Your task to perform on an android device: Clear the cart on costco.com. Search for usb-a to usb-b on costco.com, select the first entry, add it to the cart, then select checkout. Image 0: 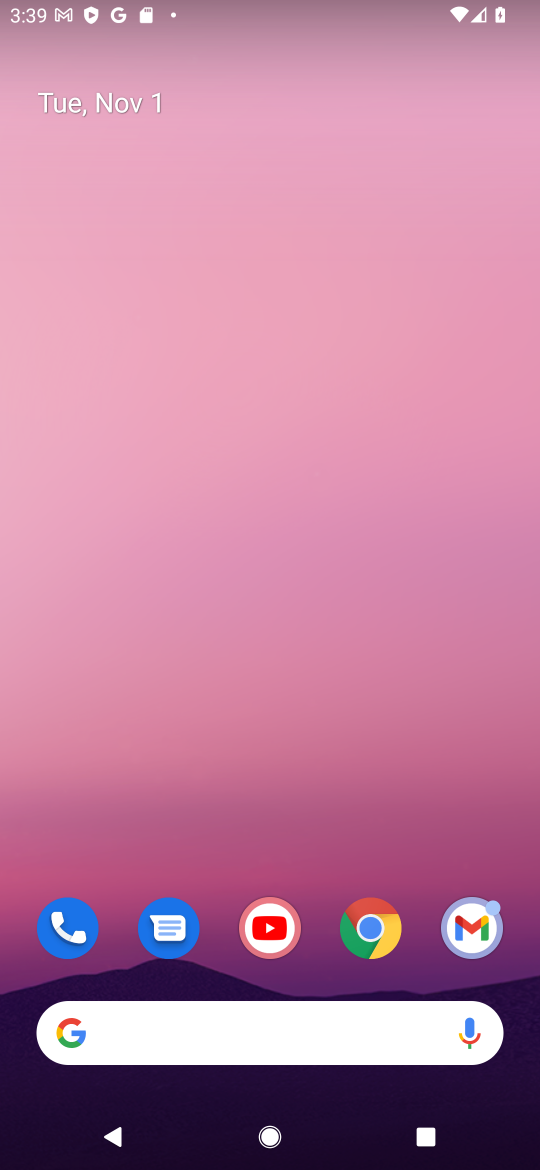
Step 0: click (380, 950)
Your task to perform on an android device: Clear the cart on costco.com. Search for usb-a to usb-b on costco.com, select the first entry, add it to the cart, then select checkout. Image 1: 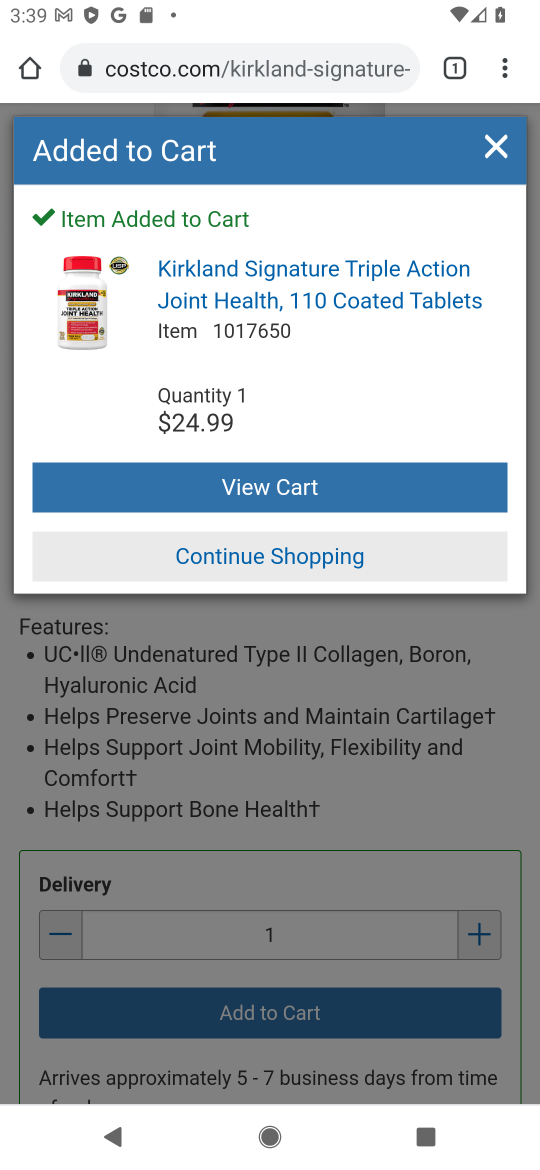
Step 1: click (257, 56)
Your task to perform on an android device: Clear the cart on costco.com. Search for usb-a to usb-b on costco.com, select the first entry, add it to the cart, then select checkout. Image 2: 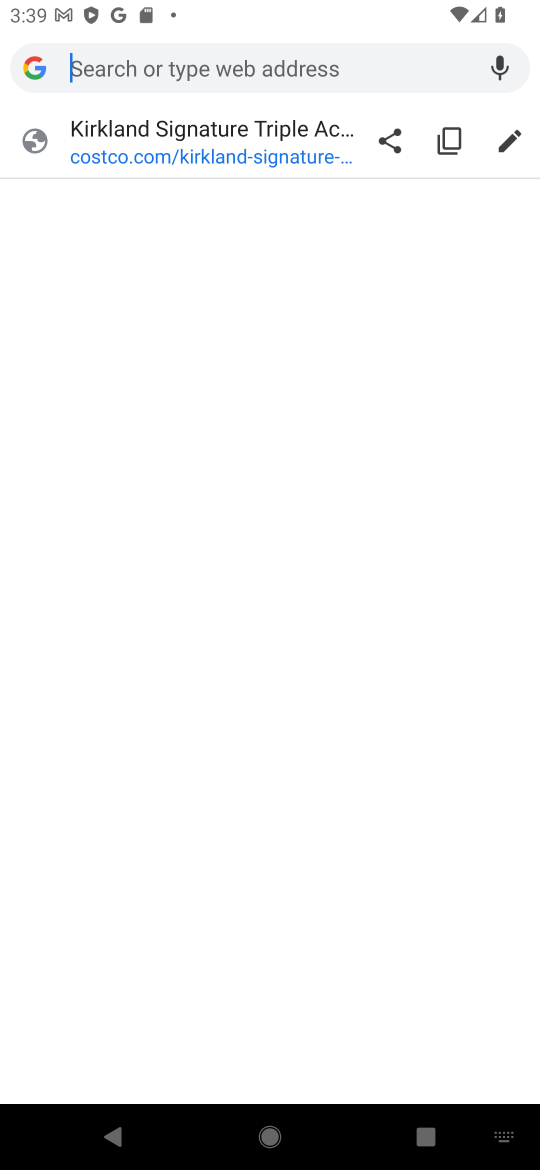
Step 2: type "costco.com"
Your task to perform on an android device: Clear the cart on costco.com. Search for usb-a to usb-b on costco.com, select the first entry, add it to the cart, then select checkout. Image 3: 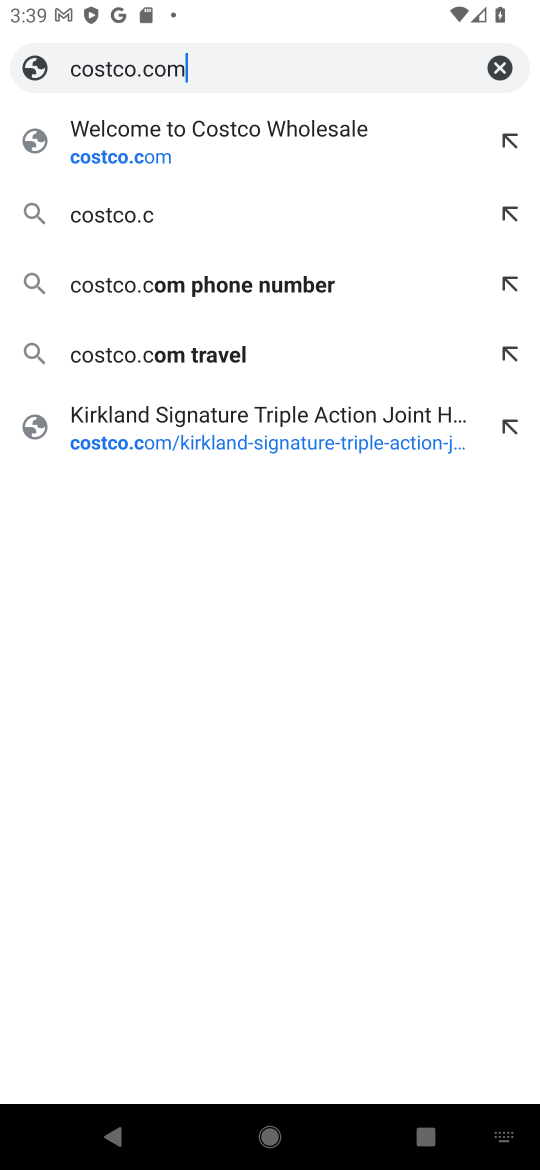
Step 3: type ""
Your task to perform on an android device: Clear the cart on costco.com. Search for usb-a to usb-b on costco.com, select the first entry, add it to the cart, then select checkout. Image 4: 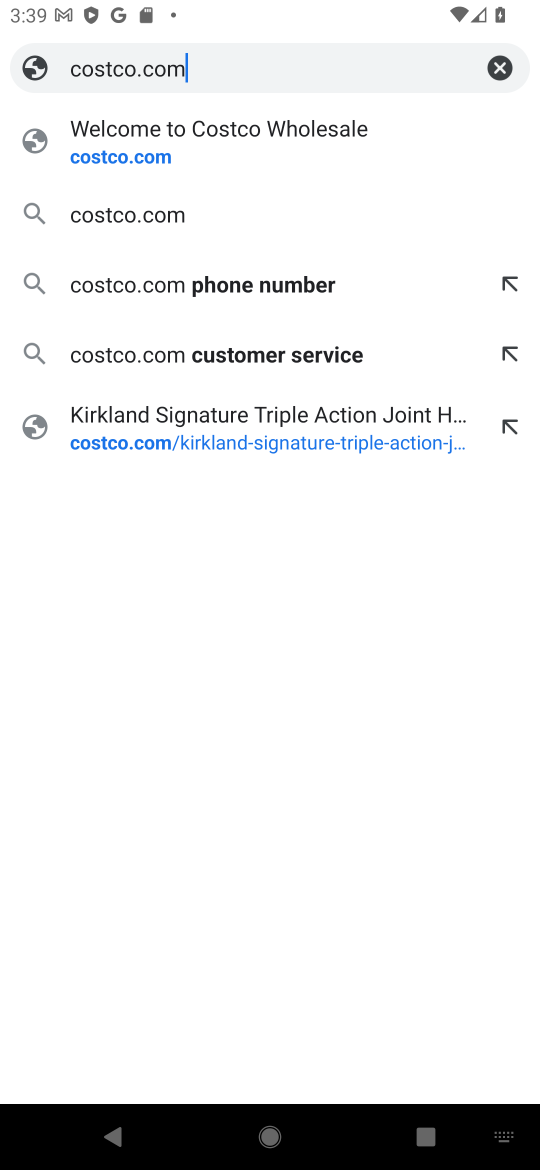
Step 4: press enter
Your task to perform on an android device: Clear the cart on costco.com. Search for usb-a to usb-b on costco.com, select the first entry, add it to the cart, then select checkout. Image 5: 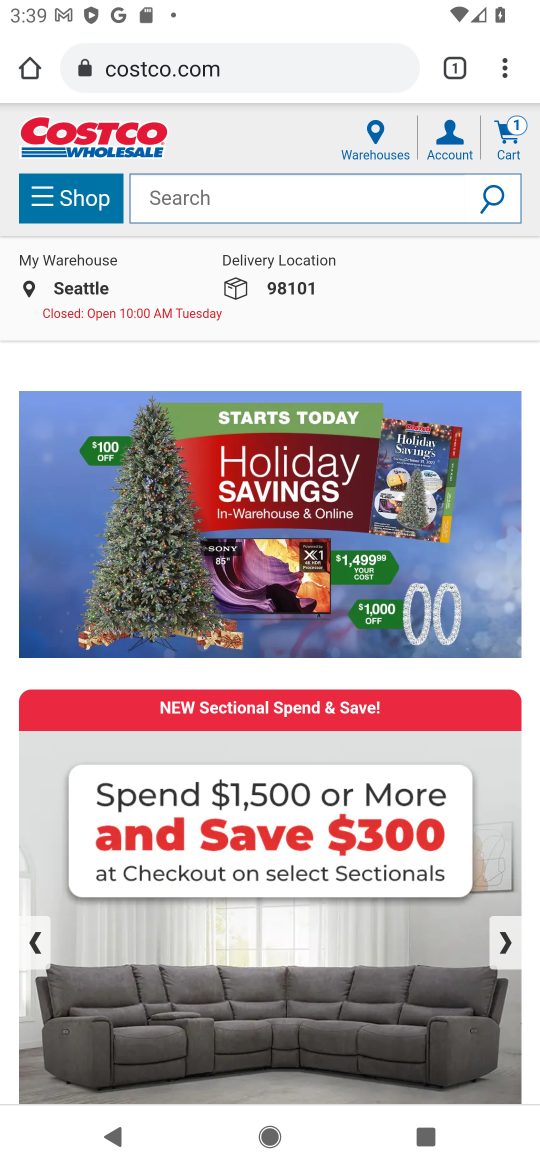
Step 5: click (505, 134)
Your task to perform on an android device: Clear the cart on costco.com. Search for usb-a to usb-b on costco.com, select the first entry, add it to the cart, then select checkout. Image 6: 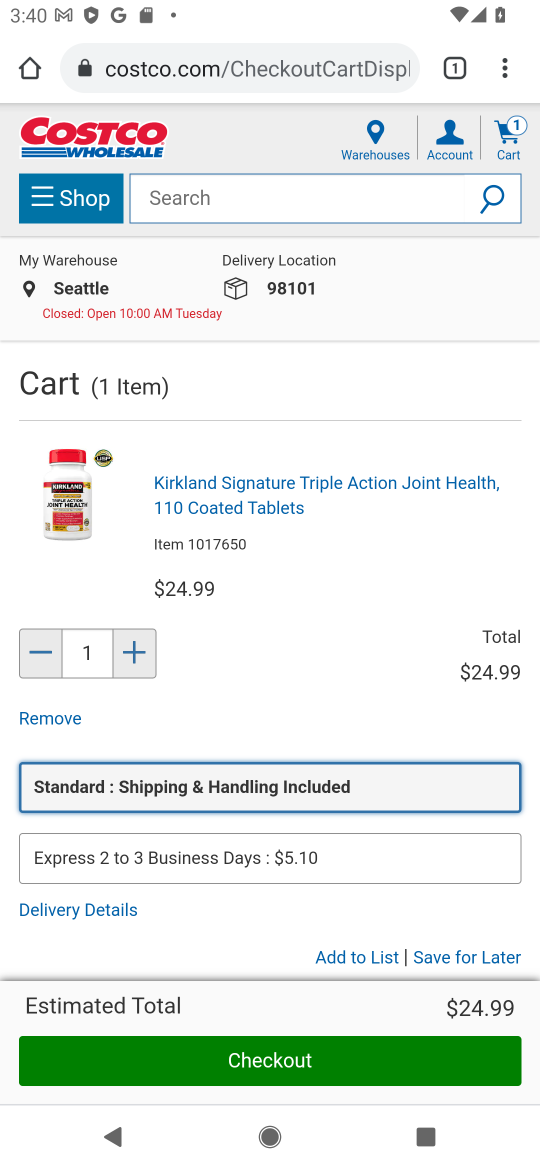
Step 6: drag from (436, 995) to (420, 1050)
Your task to perform on an android device: Clear the cart on costco.com. Search for usb-a to usb-b on costco.com, select the first entry, add it to the cart, then select checkout. Image 7: 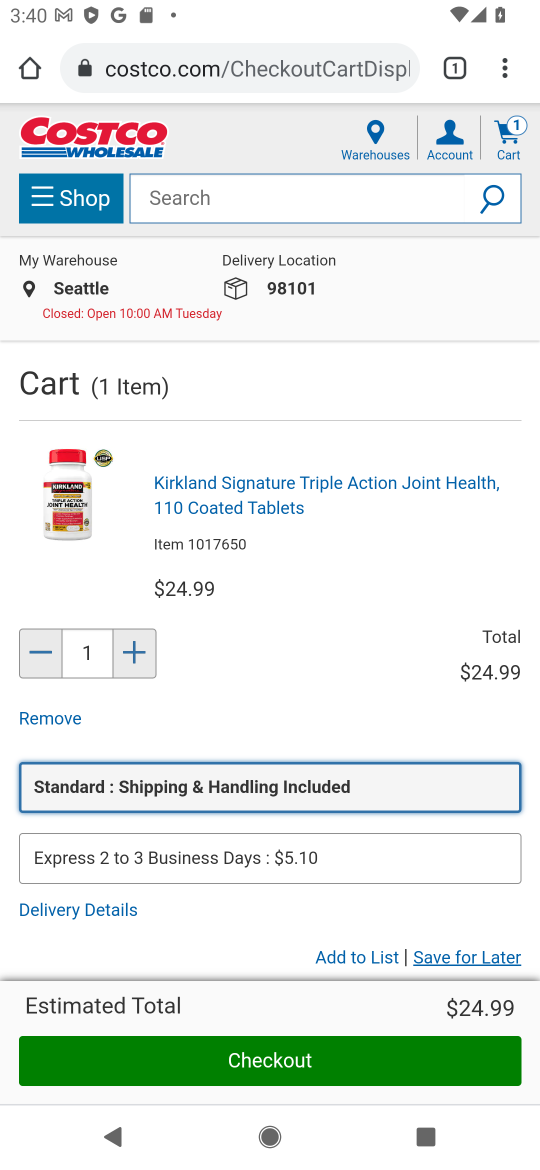
Step 7: click (258, 205)
Your task to perform on an android device: Clear the cart on costco.com. Search for usb-a to usb-b on costco.com, select the first entry, add it to the cart, then select checkout. Image 8: 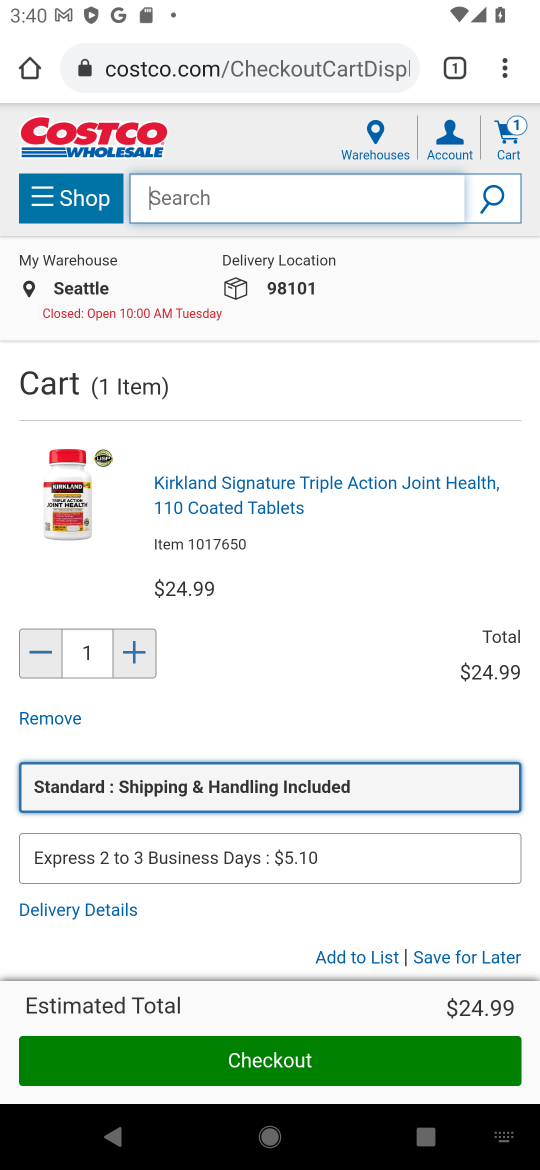
Step 8: drag from (347, 648) to (328, 529)
Your task to perform on an android device: Clear the cart on costco.com. Search for usb-a to usb-b on costco.com, select the first entry, add it to the cart, then select checkout. Image 9: 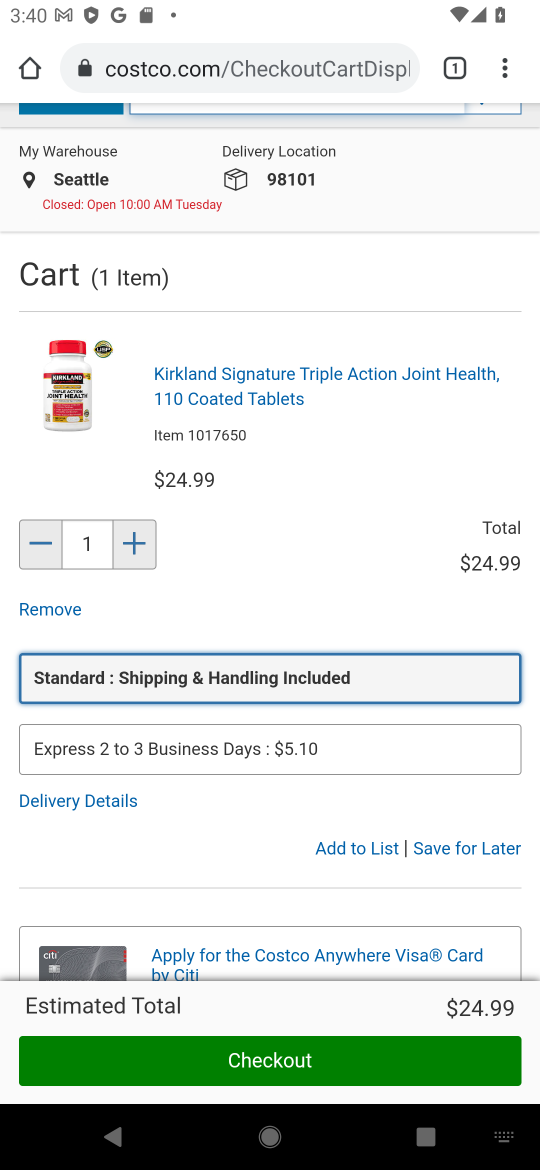
Step 9: click (59, 603)
Your task to perform on an android device: Clear the cart on costco.com. Search for usb-a to usb-b on costco.com, select the first entry, add it to the cart, then select checkout. Image 10: 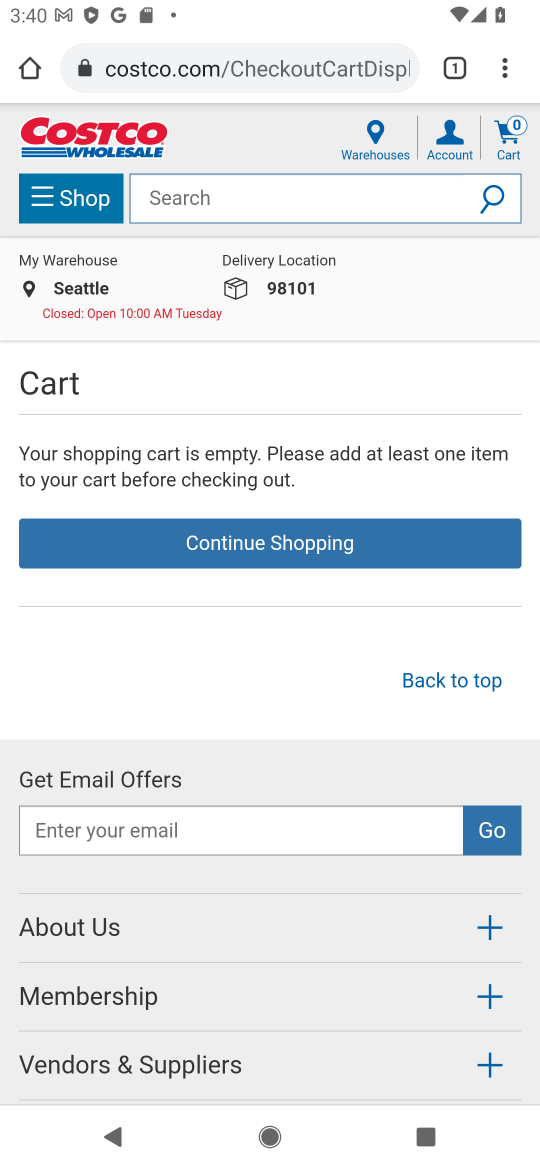
Step 10: click (277, 210)
Your task to perform on an android device: Clear the cart on costco.com. Search for usb-a to usb-b on costco.com, select the first entry, add it to the cart, then select checkout. Image 11: 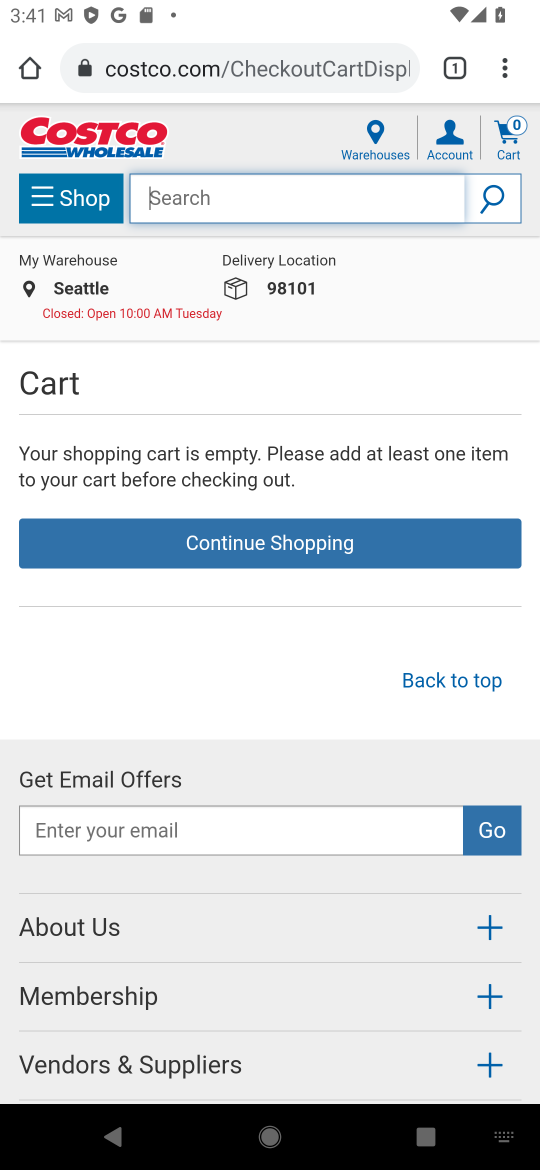
Step 11: type "usb-a to usb-b"
Your task to perform on an android device: Clear the cart on costco.com. Search for usb-a to usb-b on costco.com, select the first entry, add it to the cart, then select checkout. Image 12: 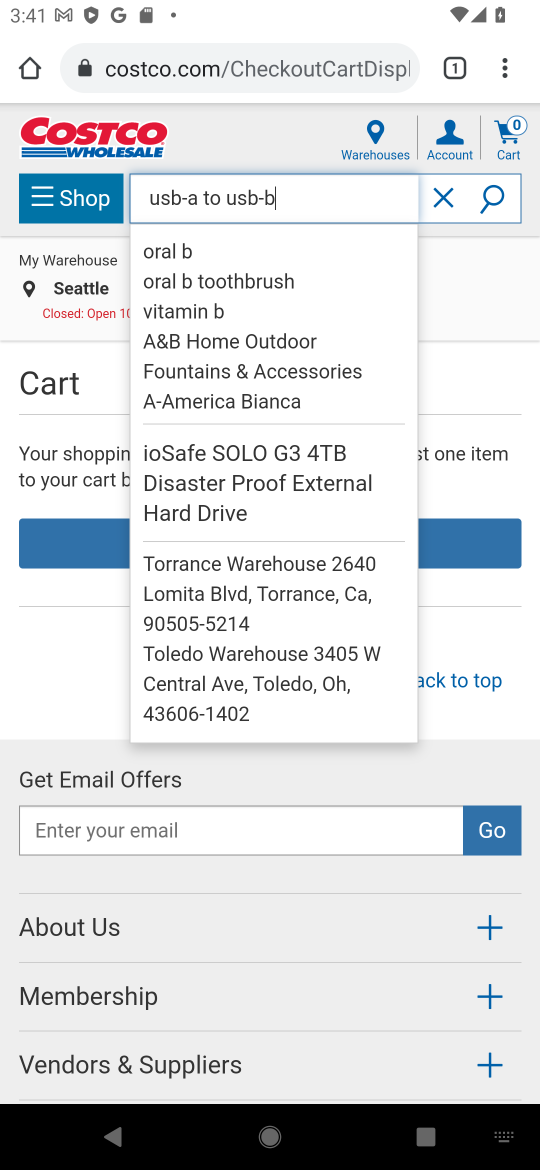
Step 12: press enter
Your task to perform on an android device: Clear the cart on costco.com. Search for usb-a to usb-b on costco.com, select the first entry, add it to the cart, then select checkout. Image 13: 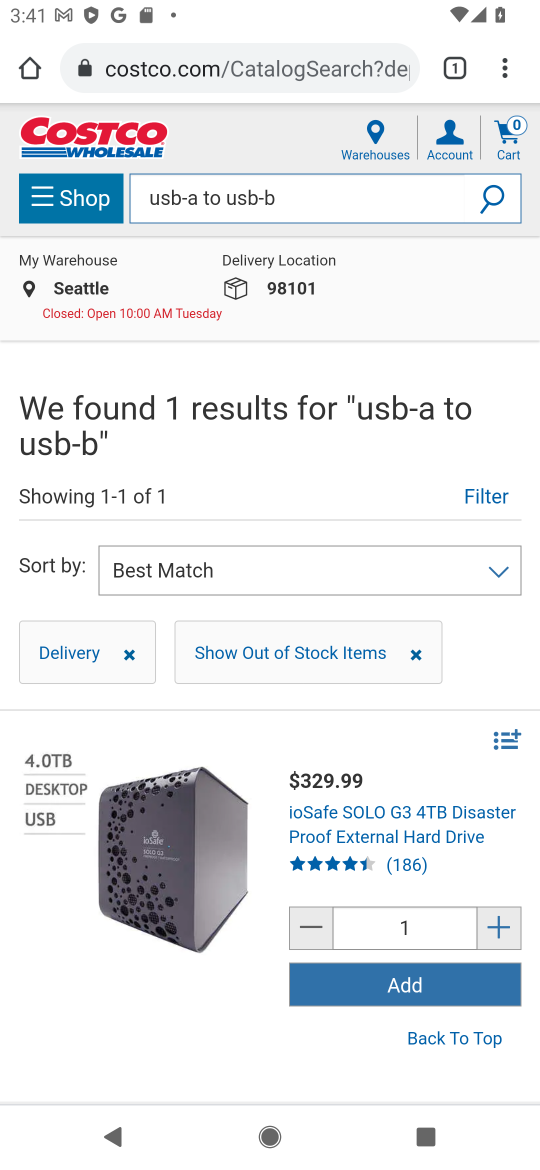
Step 13: drag from (212, 840) to (241, 622)
Your task to perform on an android device: Clear the cart on costco.com. Search for usb-a to usb-b on costco.com, select the first entry, add it to the cart, then select checkout. Image 14: 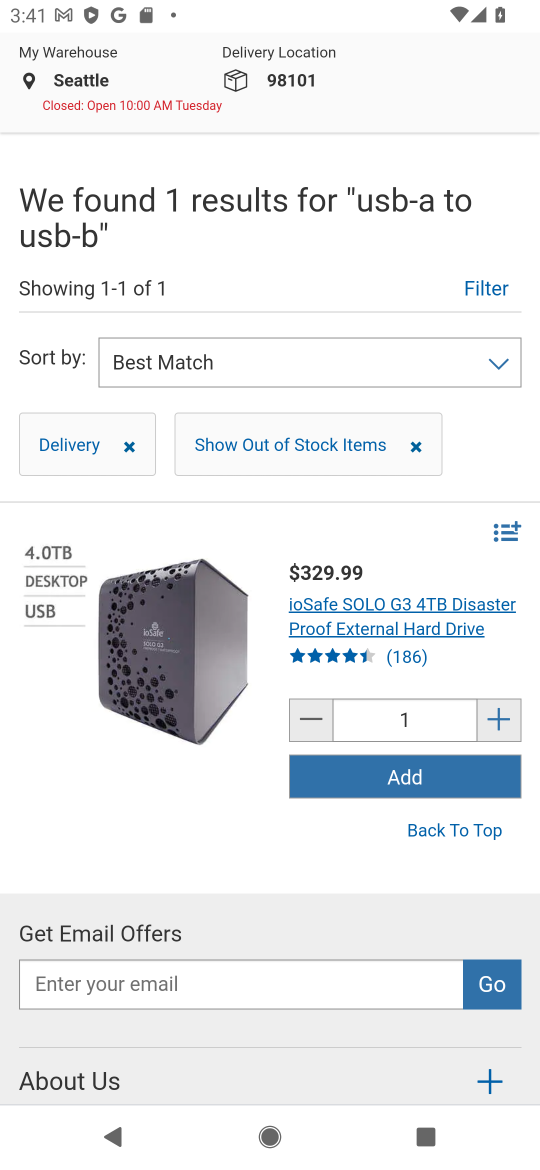
Step 14: click (342, 623)
Your task to perform on an android device: Clear the cart on costco.com. Search for usb-a to usb-b on costco.com, select the first entry, add it to the cart, then select checkout. Image 15: 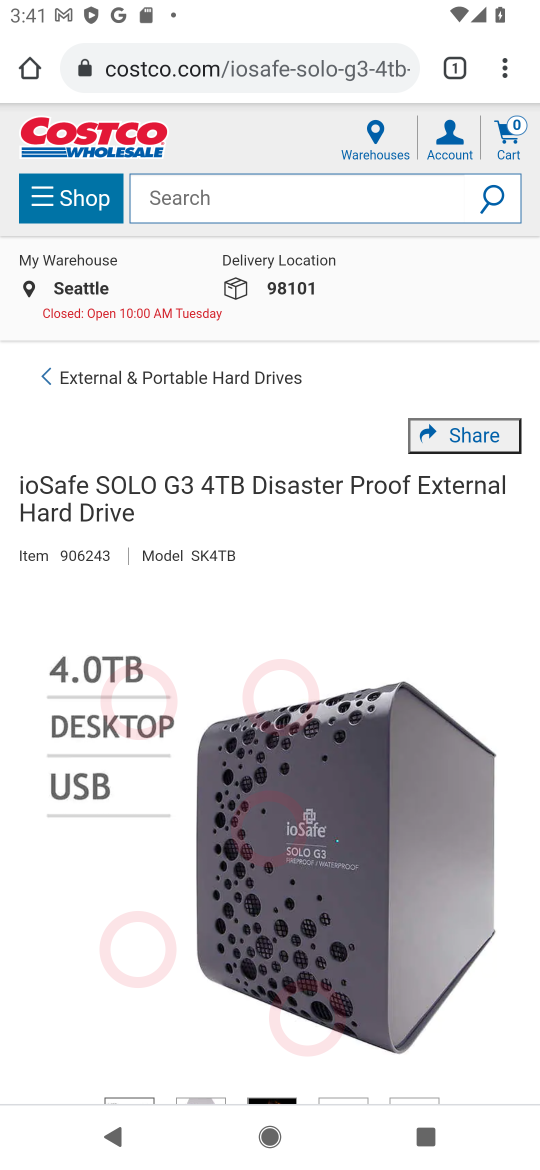
Step 15: drag from (350, 859) to (317, 334)
Your task to perform on an android device: Clear the cart on costco.com. Search for usb-a to usb-b on costco.com, select the first entry, add it to the cart, then select checkout. Image 16: 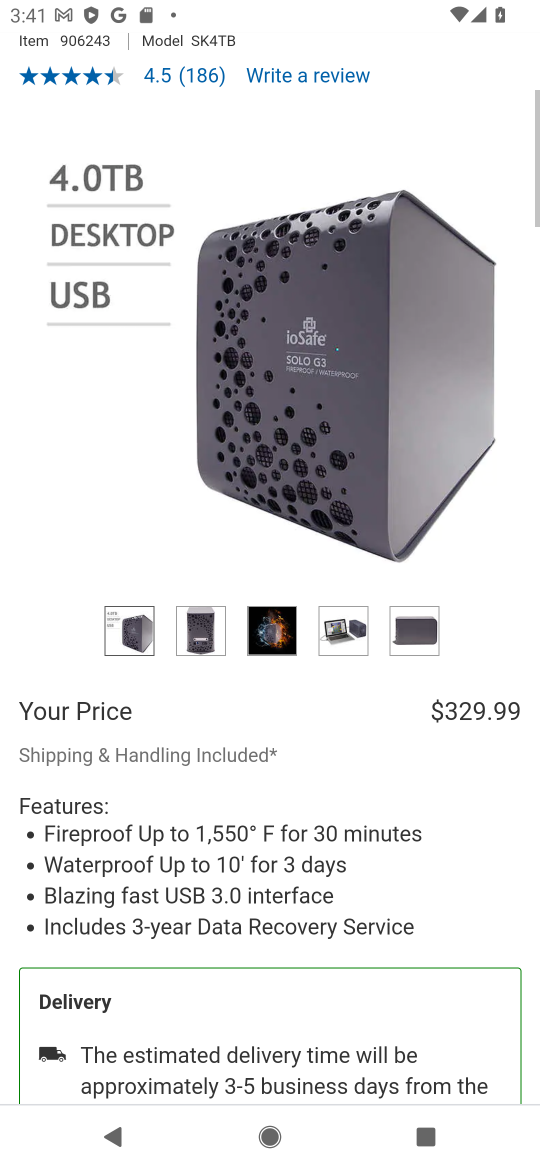
Step 16: drag from (298, 940) to (288, 403)
Your task to perform on an android device: Clear the cart on costco.com. Search for usb-a to usb-b on costco.com, select the first entry, add it to the cart, then select checkout. Image 17: 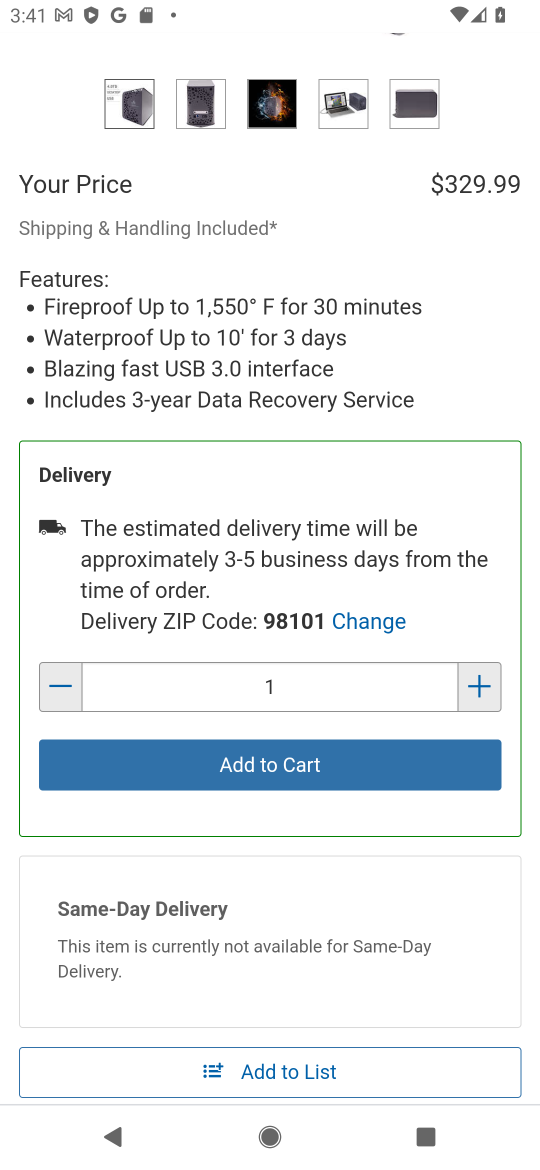
Step 17: click (278, 780)
Your task to perform on an android device: Clear the cart on costco.com. Search for usb-a to usb-b on costco.com, select the first entry, add it to the cart, then select checkout. Image 18: 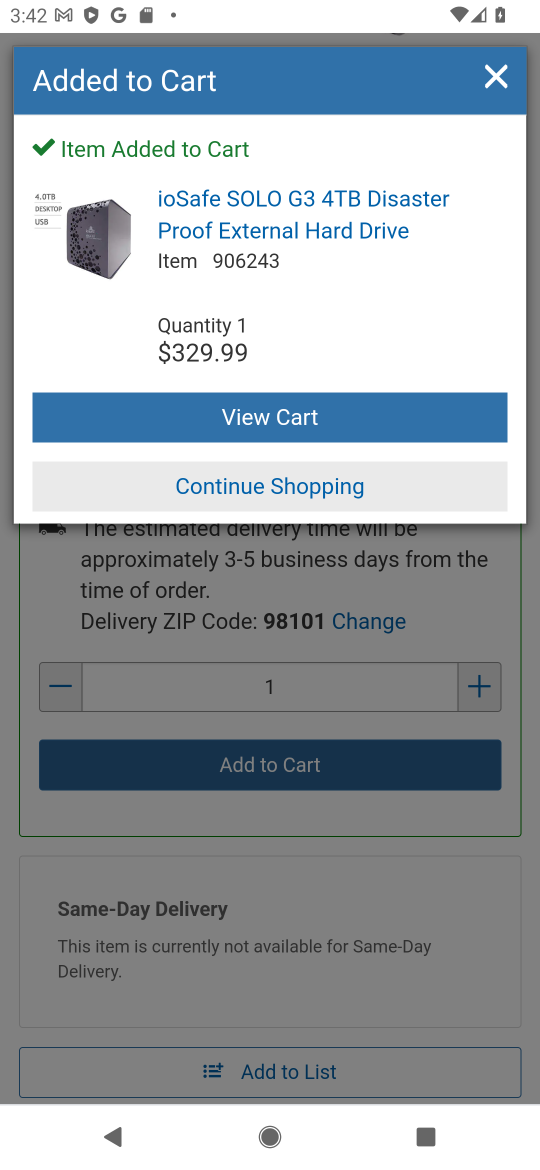
Step 18: click (283, 409)
Your task to perform on an android device: Clear the cart on costco.com. Search for usb-a to usb-b on costco.com, select the first entry, add it to the cart, then select checkout. Image 19: 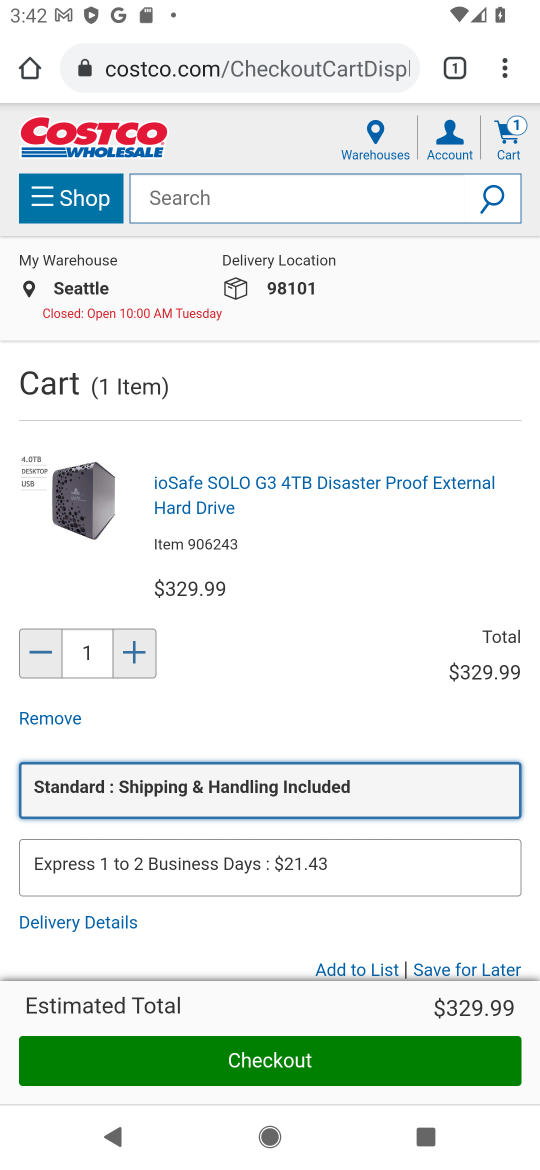
Step 19: click (292, 1058)
Your task to perform on an android device: Clear the cart on costco.com. Search for usb-a to usb-b on costco.com, select the first entry, add it to the cart, then select checkout. Image 20: 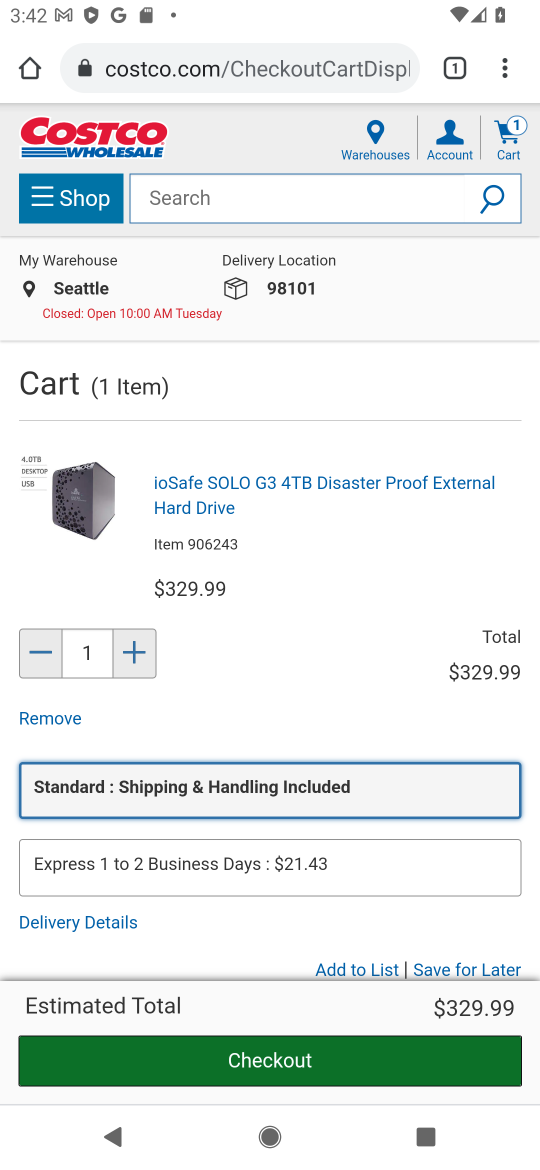
Step 20: click (294, 1067)
Your task to perform on an android device: Clear the cart on costco.com. Search for usb-a to usb-b on costco.com, select the first entry, add it to the cart, then select checkout. Image 21: 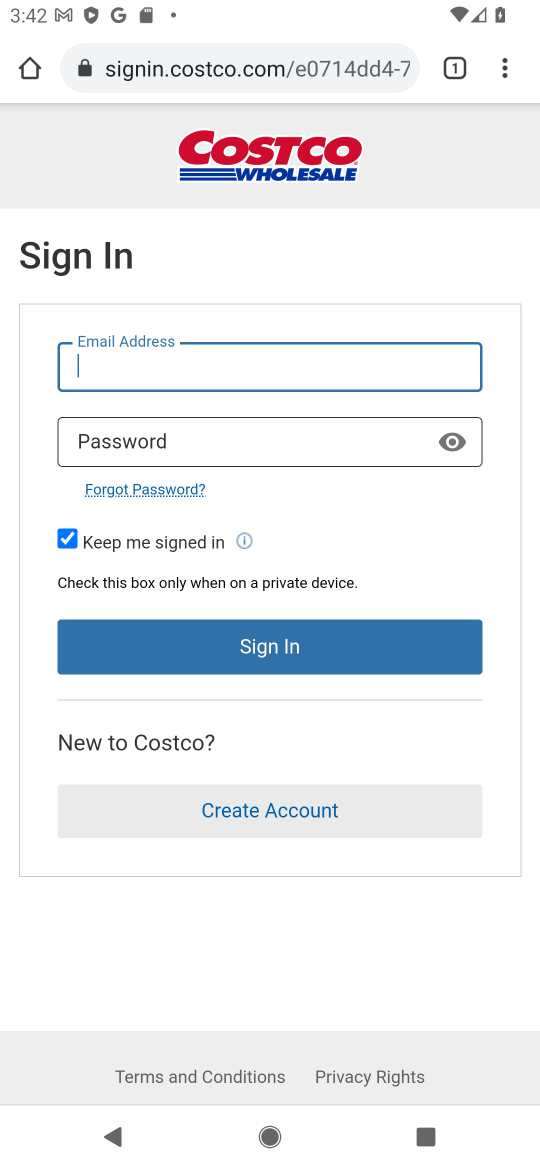
Step 21: task complete